Your task to perform on an android device: turn notification dots off Image 0: 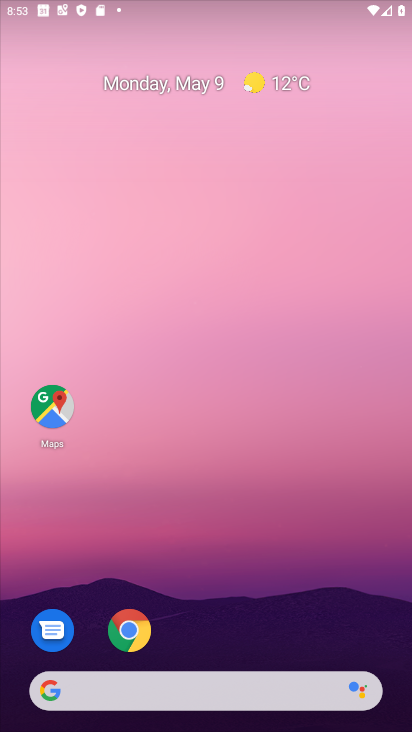
Step 0: drag from (170, 666) to (231, 372)
Your task to perform on an android device: turn notification dots off Image 1: 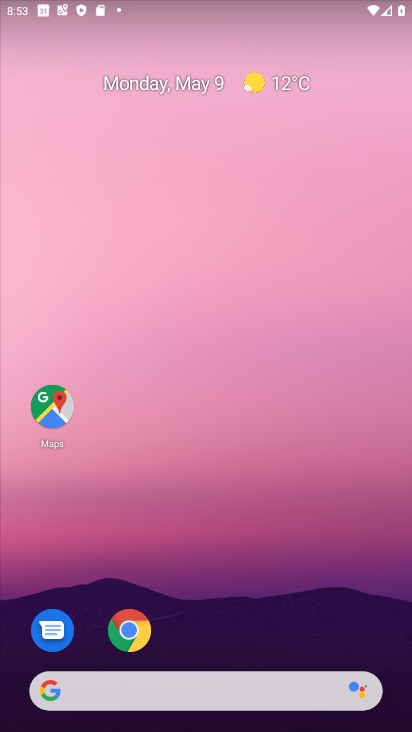
Step 1: click (126, 633)
Your task to perform on an android device: turn notification dots off Image 2: 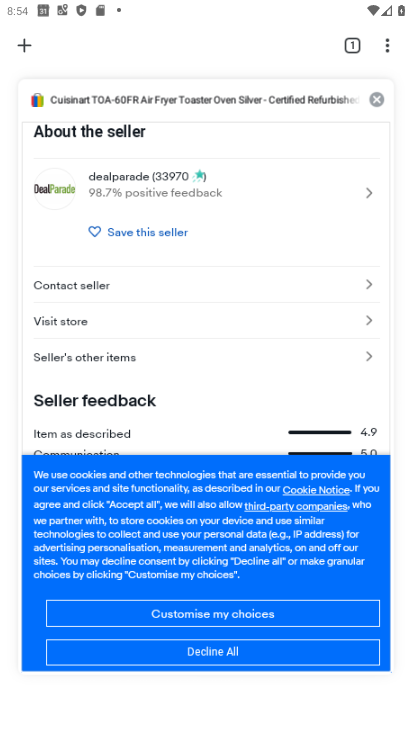
Step 2: press home button
Your task to perform on an android device: turn notification dots off Image 3: 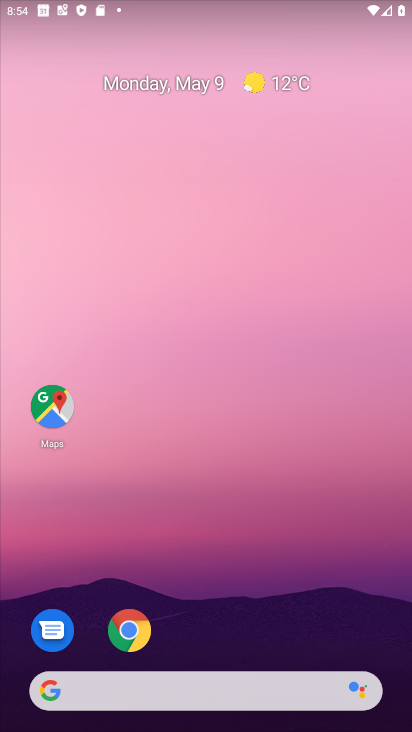
Step 3: drag from (217, 677) to (272, 252)
Your task to perform on an android device: turn notification dots off Image 4: 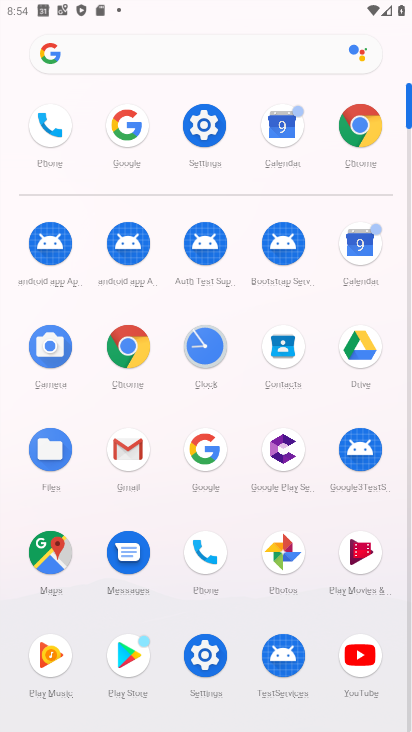
Step 4: click (209, 118)
Your task to perform on an android device: turn notification dots off Image 5: 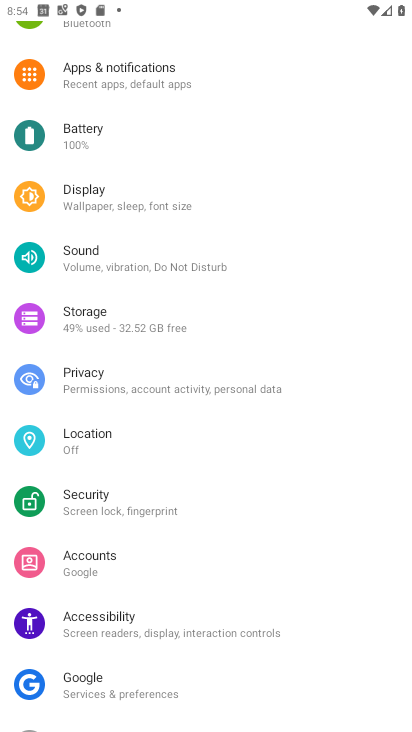
Step 5: click (143, 85)
Your task to perform on an android device: turn notification dots off Image 6: 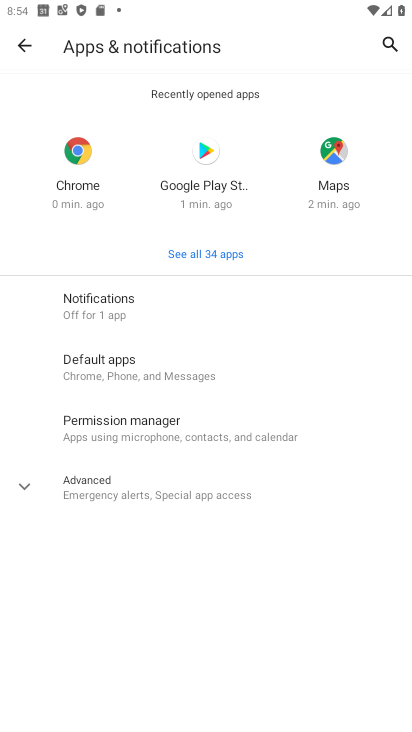
Step 6: click (99, 312)
Your task to perform on an android device: turn notification dots off Image 7: 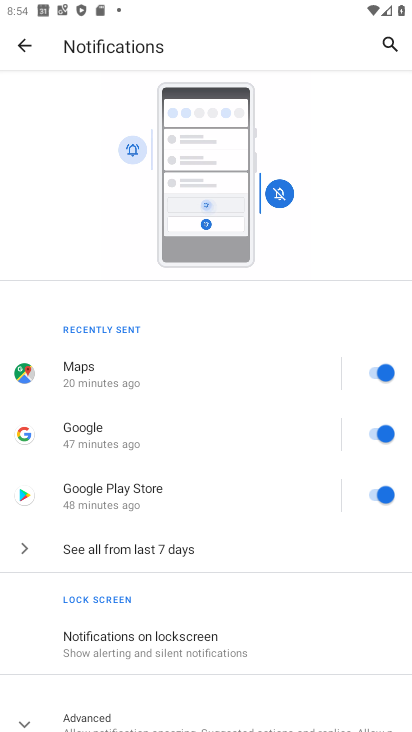
Step 7: click (107, 722)
Your task to perform on an android device: turn notification dots off Image 8: 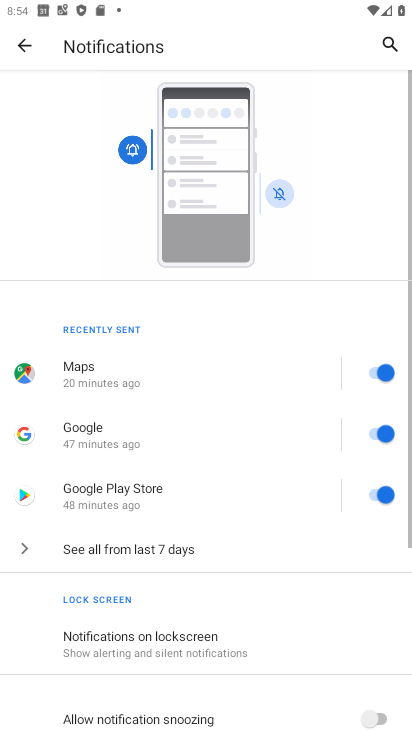
Step 8: drag from (185, 703) to (186, 397)
Your task to perform on an android device: turn notification dots off Image 9: 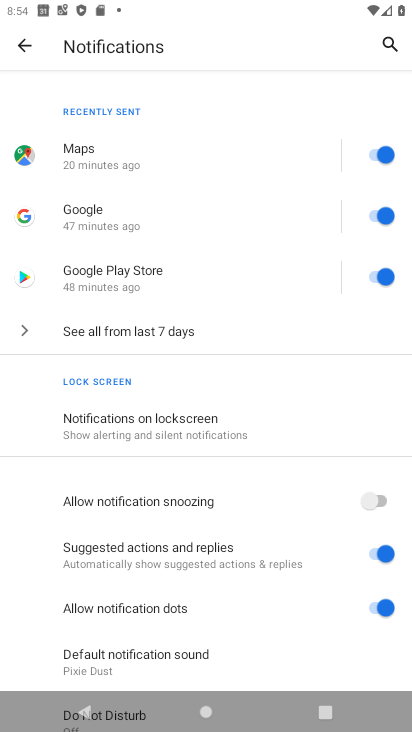
Step 9: click (372, 604)
Your task to perform on an android device: turn notification dots off Image 10: 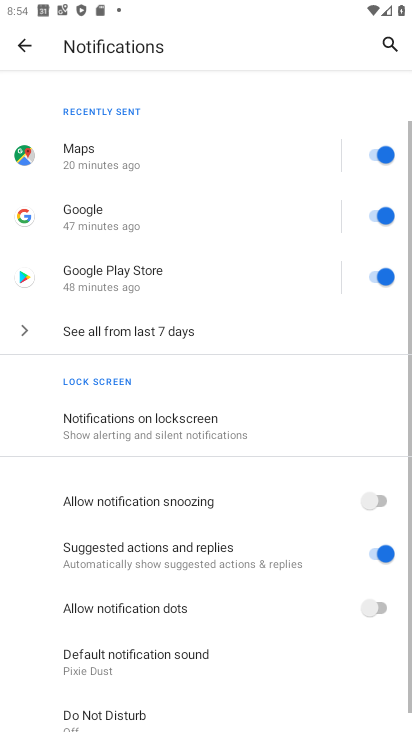
Step 10: task complete